Your task to perform on an android device: delete a single message in the gmail app Image 0: 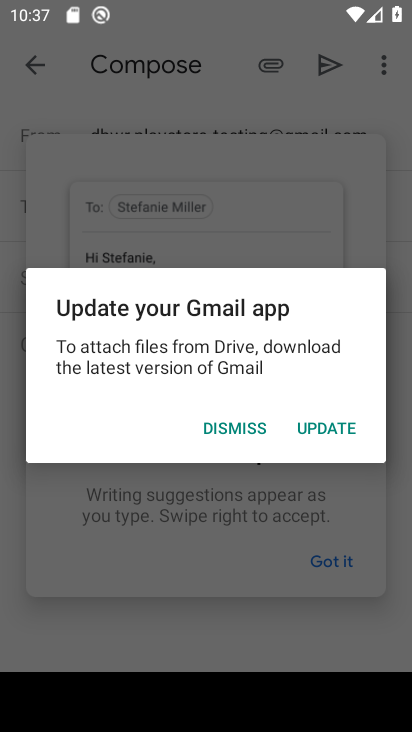
Step 0: press home button
Your task to perform on an android device: delete a single message in the gmail app Image 1: 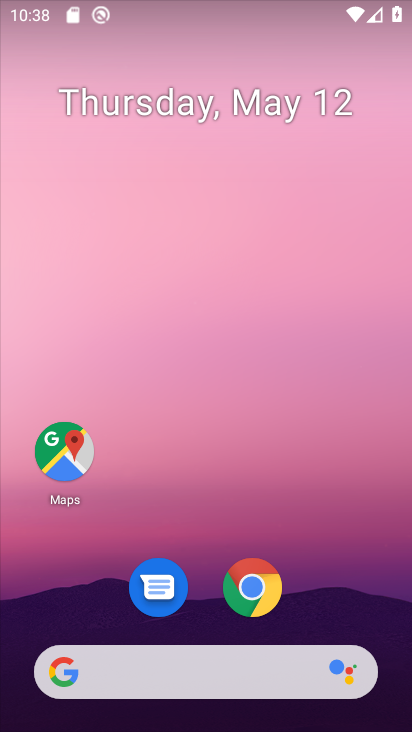
Step 1: click (285, 360)
Your task to perform on an android device: delete a single message in the gmail app Image 2: 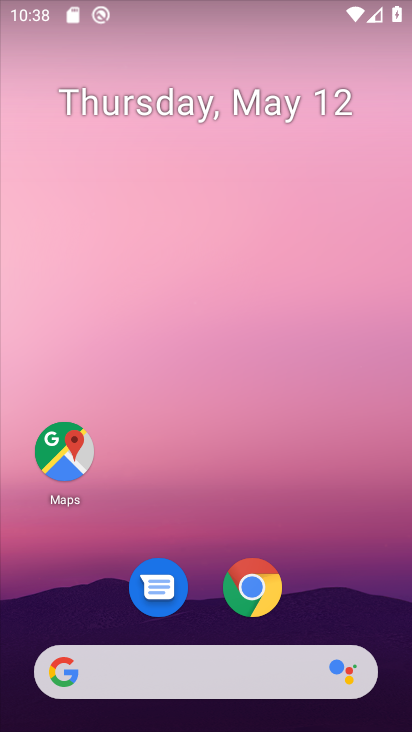
Step 2: drag from (307, 261) to (309, 11)
Your task to perform on an android device: delete a single message in the gmail app Image 3: 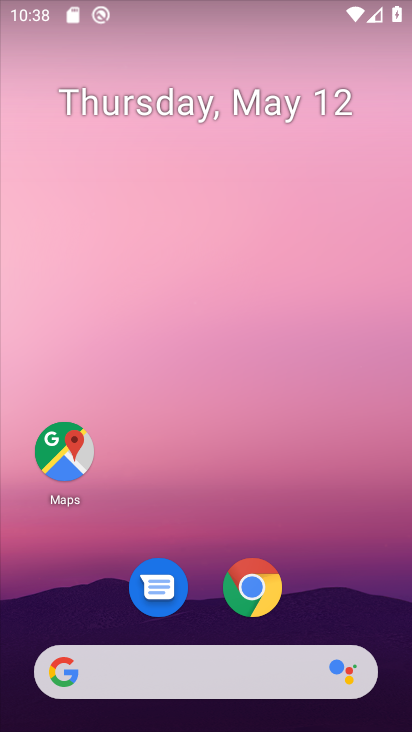
Step 3: click (305, 593)
Your task to perform on an android device: delete a single message in the gmail app Image 4: 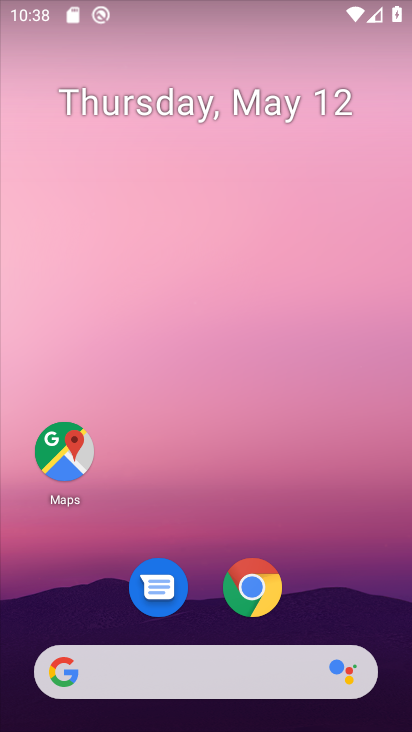
Step 4: drag from (325, 458) to (379, 174)
Your task to perform on an android device: delete a single message in the gmail app Image 5: 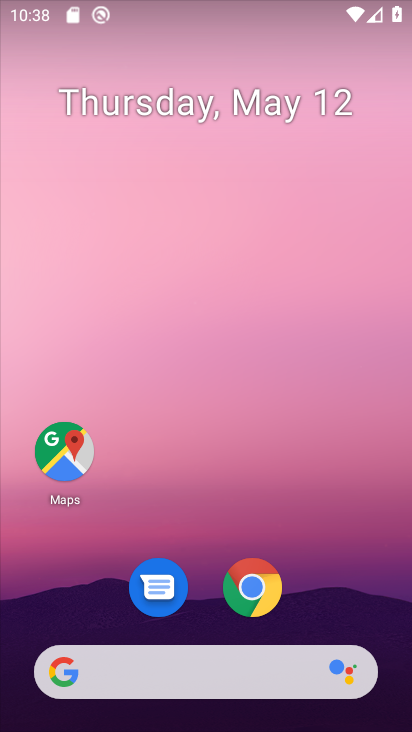
Step 5: click (250, 171)
Your task to perform on an android device: delete a single message in the gmail app Image 6: 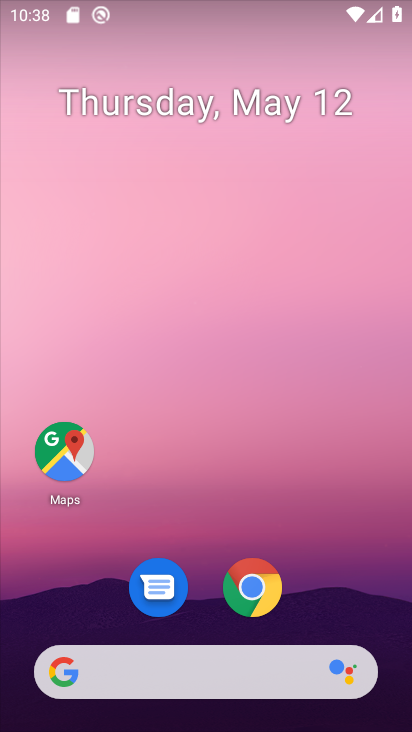
Step 6: drag from (195, 613) to (228, 194)
Your task to perform on an android device: delete a single message in the gmail app Image 7: 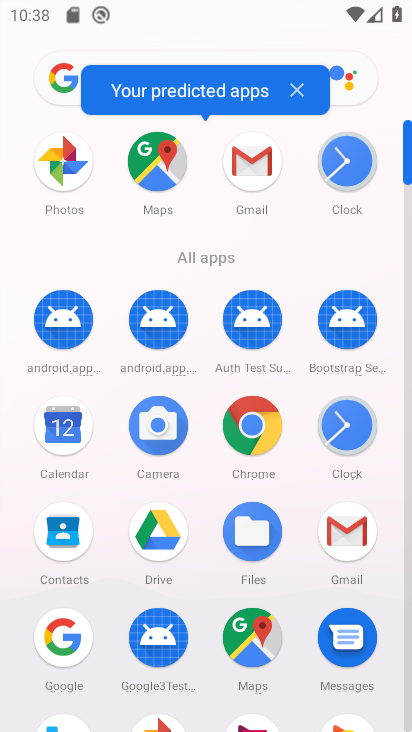
Step 7: click (256, 164)
Your task to perform on an android device: delete a single message in the gmail app Image 8: 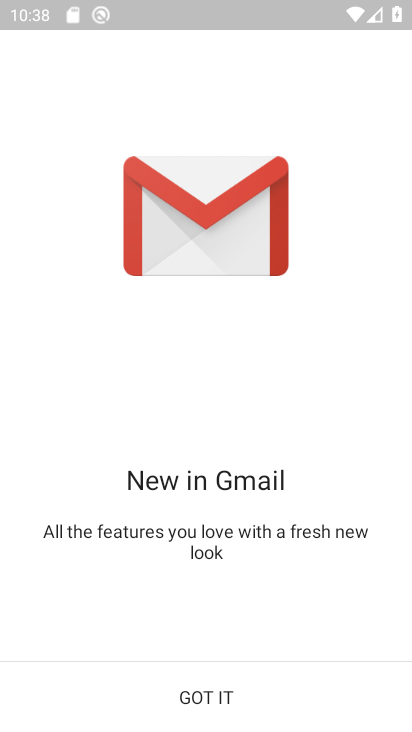
Step 8: click (203, 703)
Your task to perform on an android device: delete a single message in the gmail app Image 9: 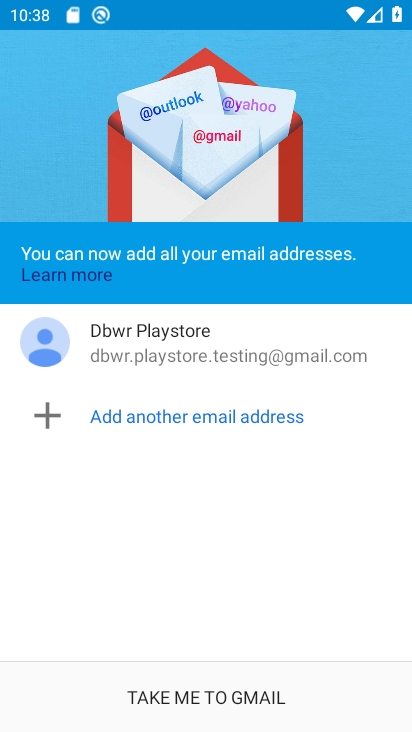
Step 9: click (203, 703)
Your task to perform on an android device: delete a single message in the gmail app Image 10: 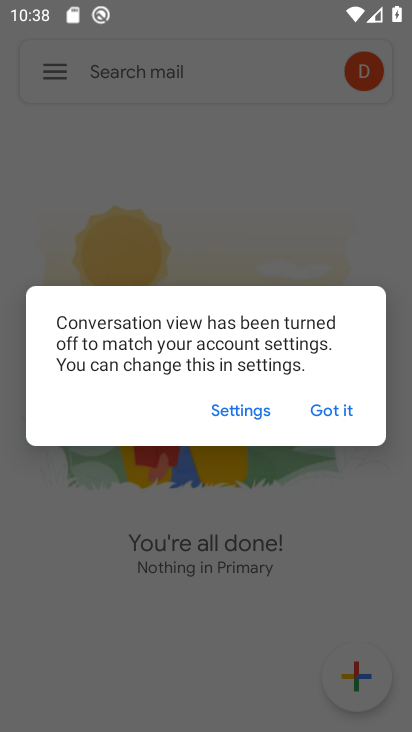
Step 10: click (327, 408)
Your task to perform on an android device: delete a single message in the gmail app Image 11: 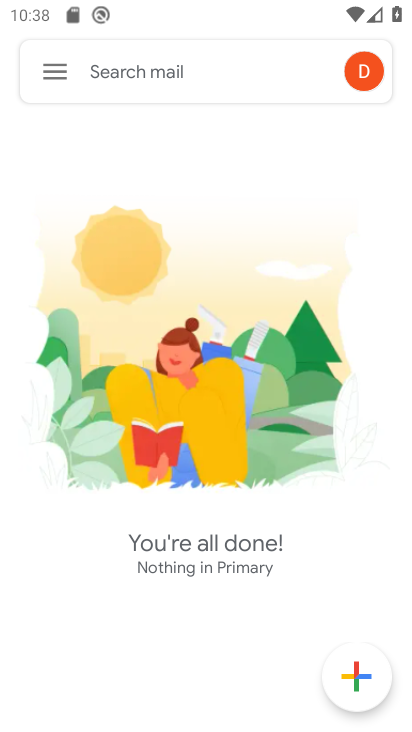
Step 11: click (56, 73)
Your task to perform on an android device: delete a single message in the gmail app Image 12: 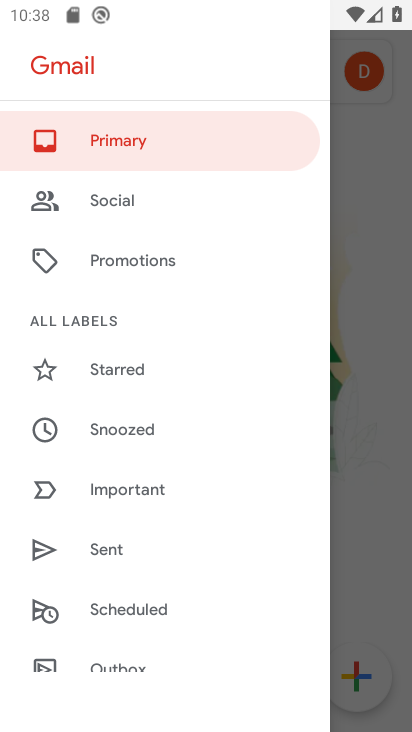
Step 12: drag from (184, 309) to (220, 111)
Your task to perform on an android device: delete a single message in the gmail app Image 13: 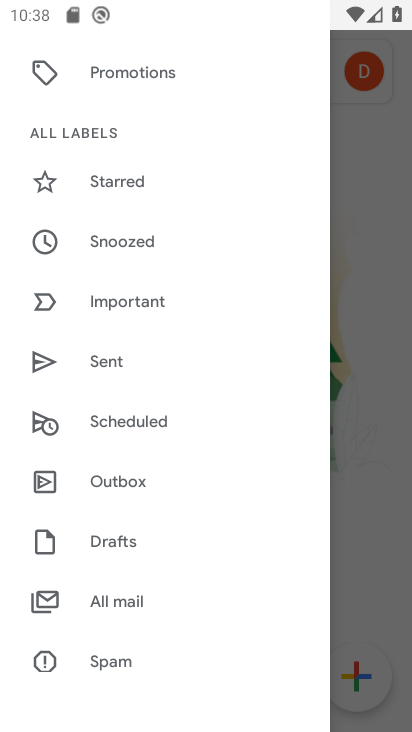
Step 13: click (138, 597)
Your task to perform on an android device: delete a single message in the gmail app Image 14: 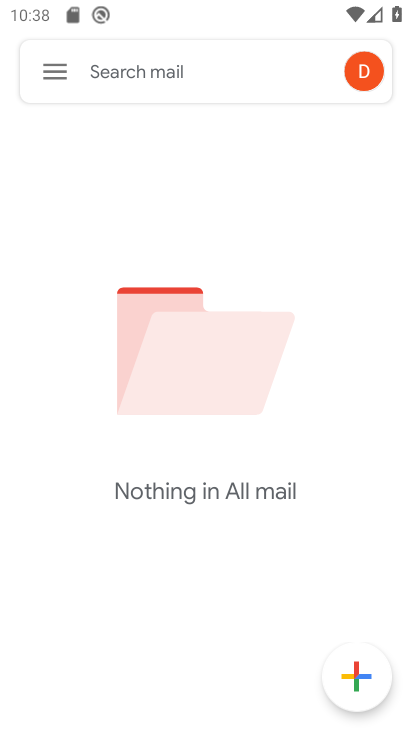
Step 14: task complete